Your task to perform on an android device: What's on my calendar today? Image 0: 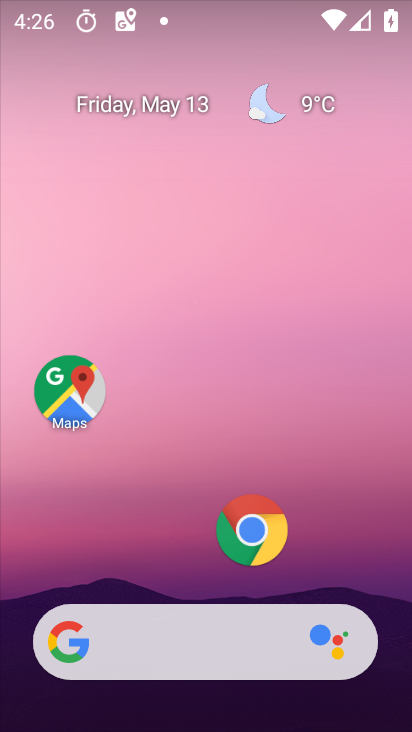
Step 0: drag from (183, 562) to (278, 15)
Your task to perform on an android device: What's on my calendar today? Image 1: 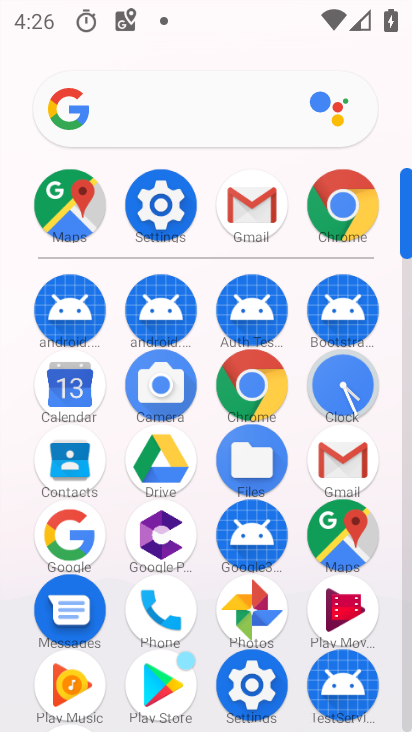
Step 1: click (64, 381)
Your task to perform on an android device: What's on my calendar today? Image 2: 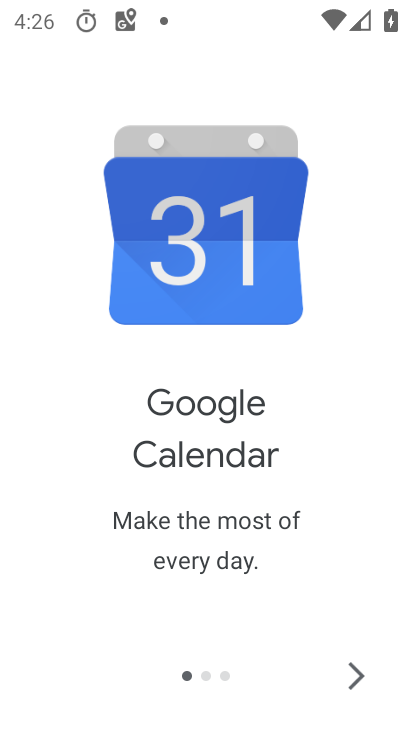
Step 2: click (353, 666)
Your task to perform on an android device: What's on my calendar today? Image 3: 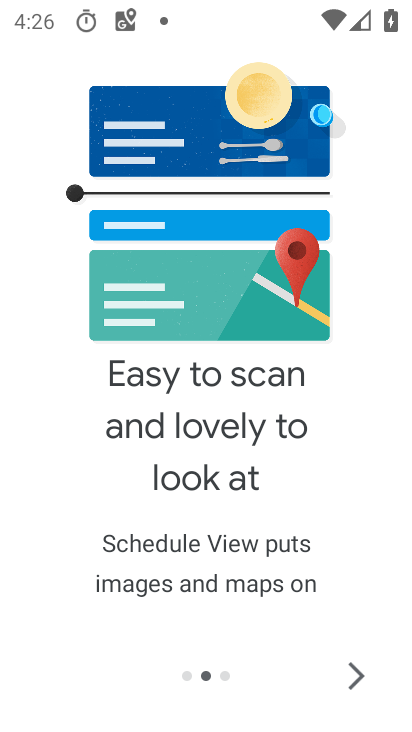
Step 3: click (353, 666)
Your task to perform on an android device: What's on my calendar today? Image 4: 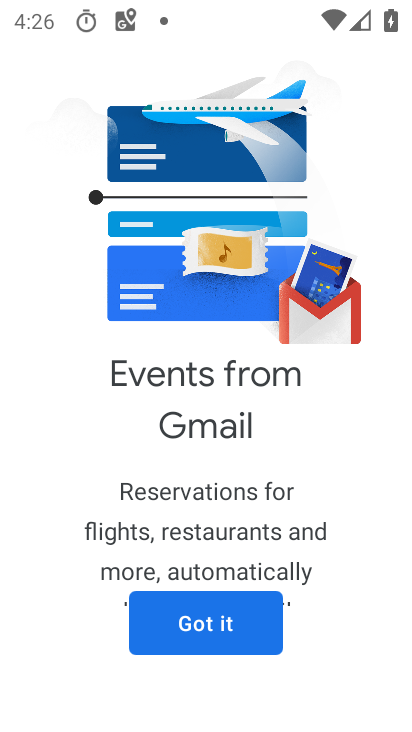
Step 4: click (208, 631)
Your task to perform on an android device: What's on my calendar today? Image 5: 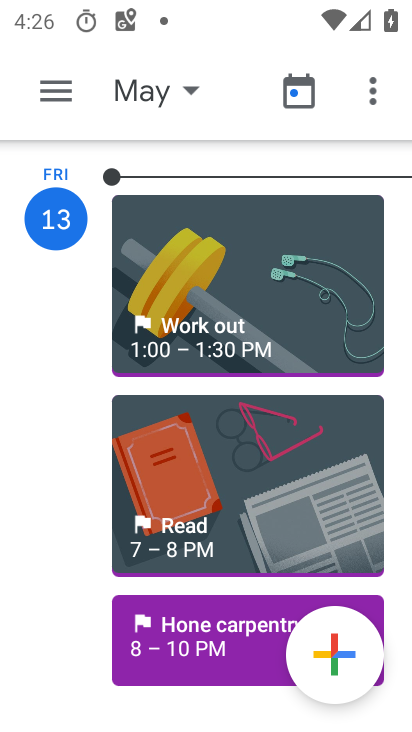
Step 5: click (62, 86)
Your task to perform on an android device: What's on my calendar today? Image 6: 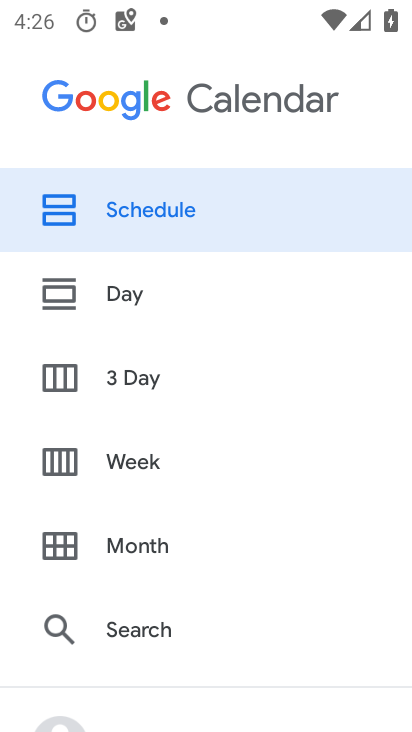
Step 6: click (99, 301)
Your task to perform on an android device: What's on my calendar today? Image 7: 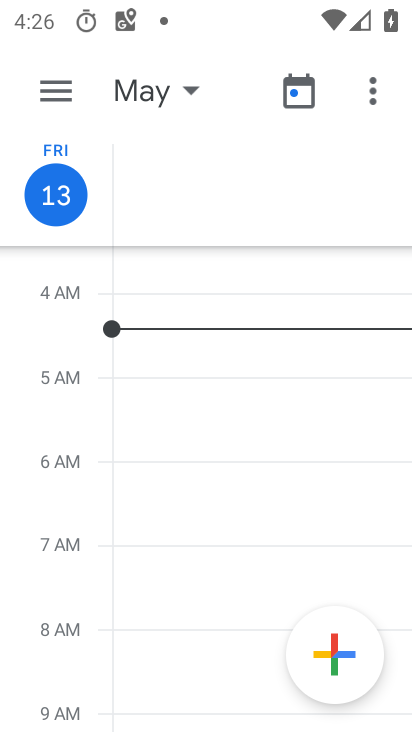
Step 7: task complete